Your task to perform on an android device: turn on data saver in the chrome app Image 0: 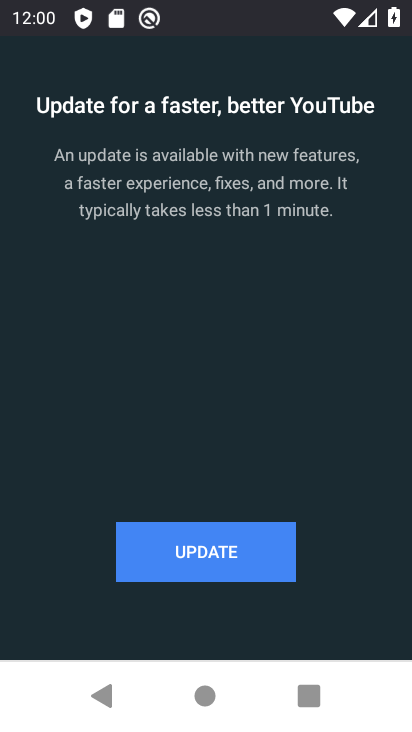
Step 0: press home button
Your task to perform on an android device: turn on data saver in the chrome app Image 1: 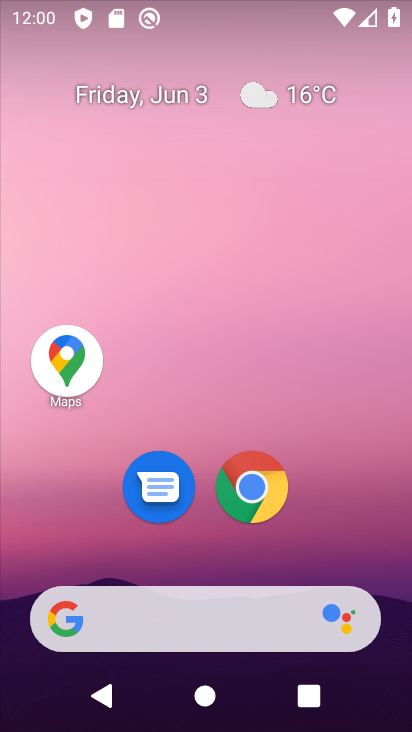
Step 1: click (270, 490)
Your task to perform on an android device: turn on data saver in the chrome app Image 2: 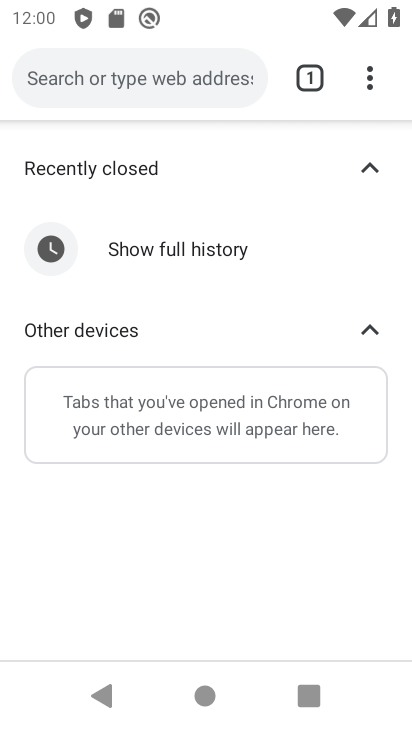
Step 2: click (362, 76)
Your task to perform on an android device: turn on data saver in the chrome app Image 3: 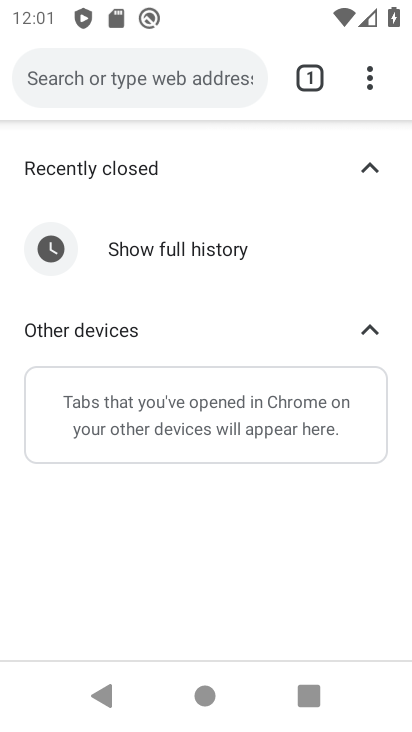
Step 3: click (371, 77)
Your task to perform on an android device: turn on data saver in the chrome app Image 4: 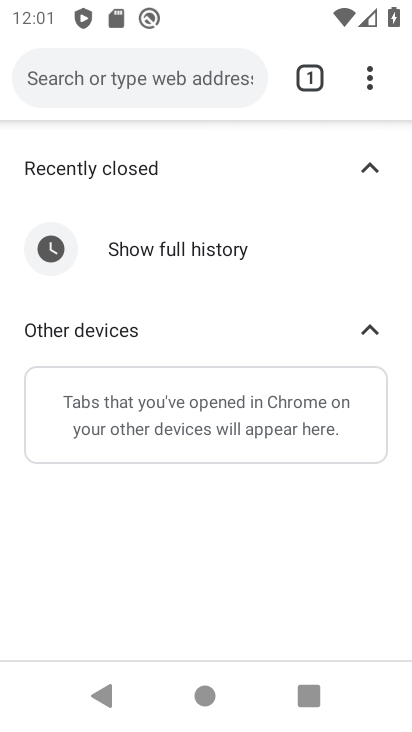
Step 4: click (362, 78)
Your task to perform on an android device: turn on data saver in the chrome app Image 5: 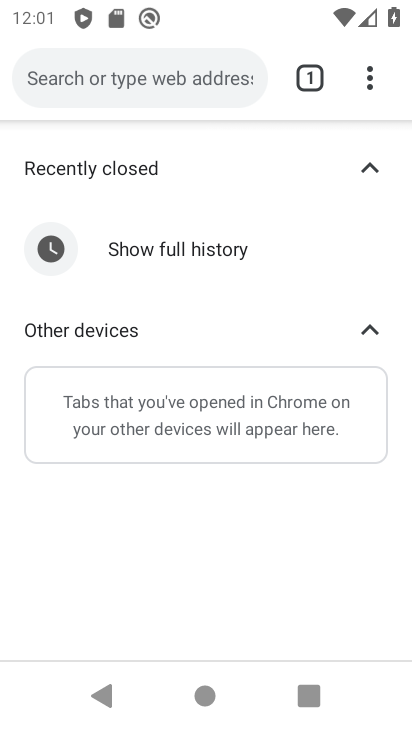
Step 5: drag from (373, 86) to (176, 555)
Your task to perform on an android device: turn on data saver in the chrome app Image 6: 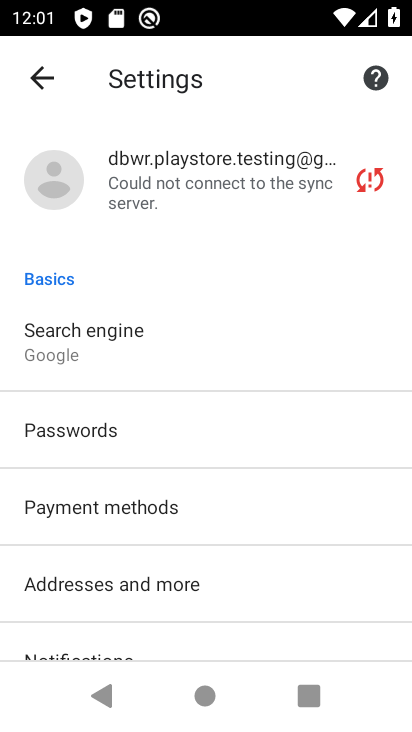
Step 6: drag from (183, 220) to (196, 88)
Your task to perform on an android device: turn on data saver in the chrome app Image 7: 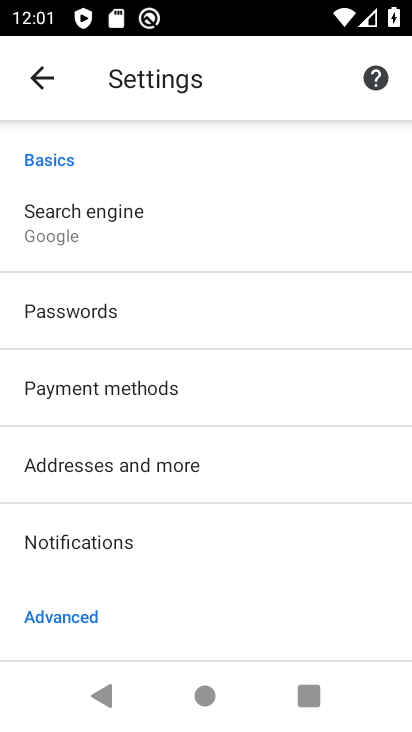
Step 7: drag from (255, 623) to (208, 191)
Your task to perform on an android device: turn on data saver in the chrome app Image 8: 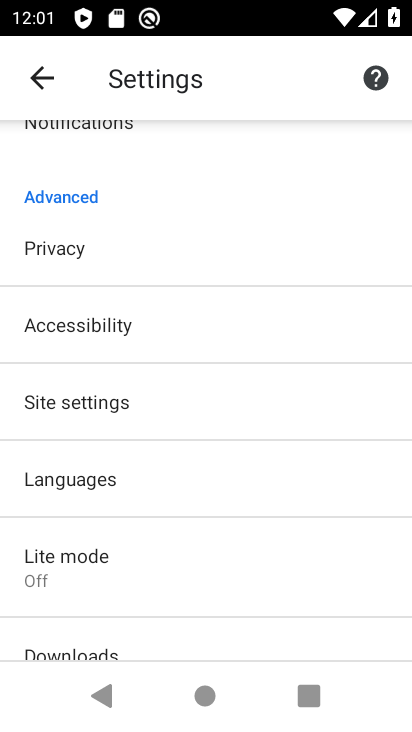
Step 8: click (87, 570)
Your task to perform on an android device: turn on data saver in the chrome app Image 9: 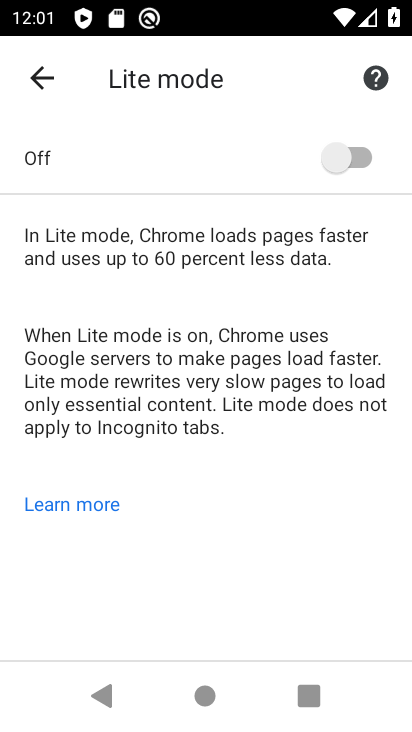
Step 9: click (335, 163)
Your task to perform on an android device: turn on data saver in the chrome app Image 10: 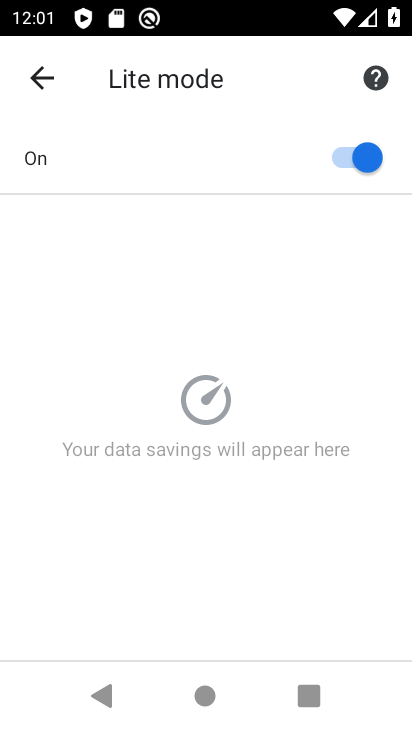
Step 10: task complete